Your task to perform on an android device: turn off sleep mode Image 0: 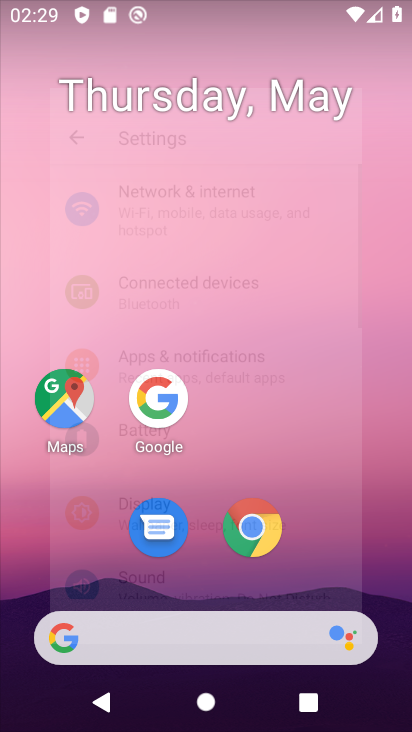
Step 0: drag from (208, 537) to (244, 64)
Your task to perform on an android device: turn off sleep mode Image 1: 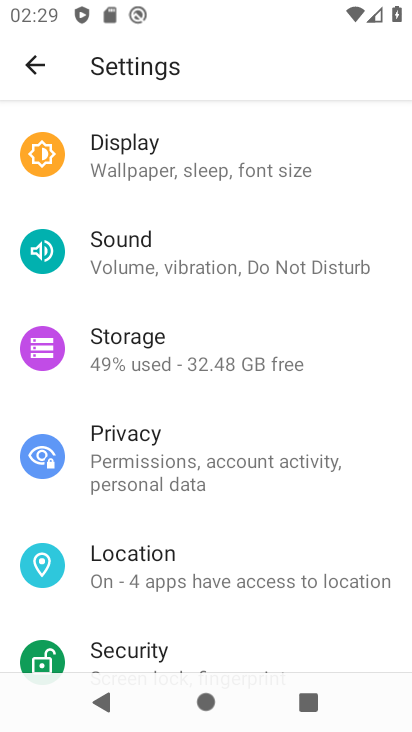
Step 1: click (231, 139)
Your task to perform on an android device: turn off sleep mode Image 2: 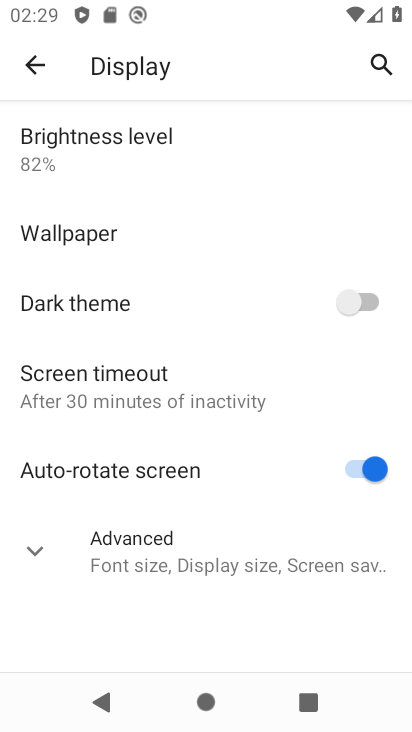
Step 2: drag from (217, 475) to (281, 176)
Your task to perform on an android device: turn off sleep mode Image 3: 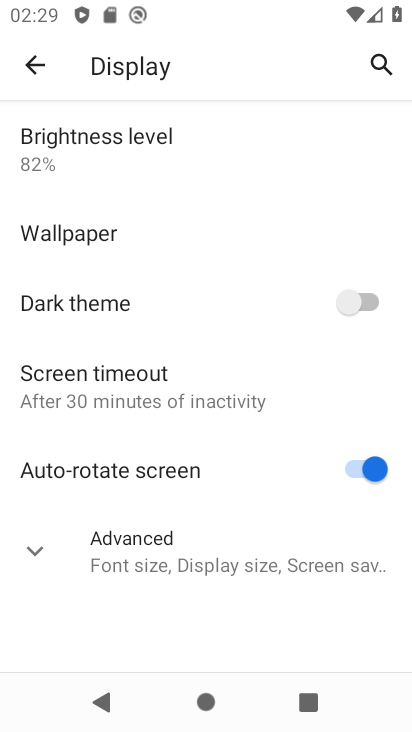
Step 3: drag from (210, 490) to (256, 242)
Your task to perform on an android device: turn off sleep mode Image 4: 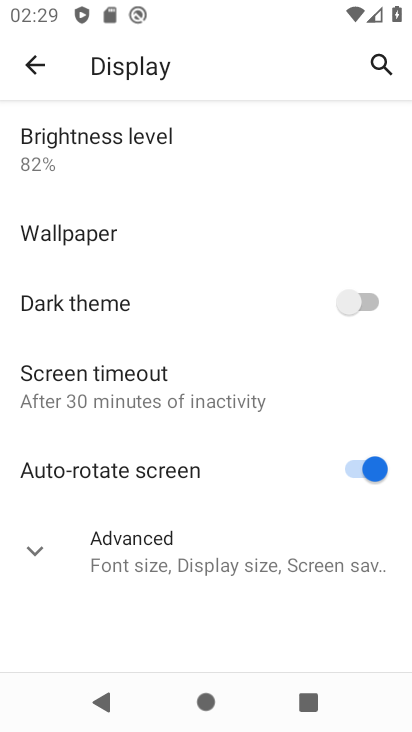
Step 4: click (241, 392)
Your task to perform on an android device: turn off sleep mode Image 5: 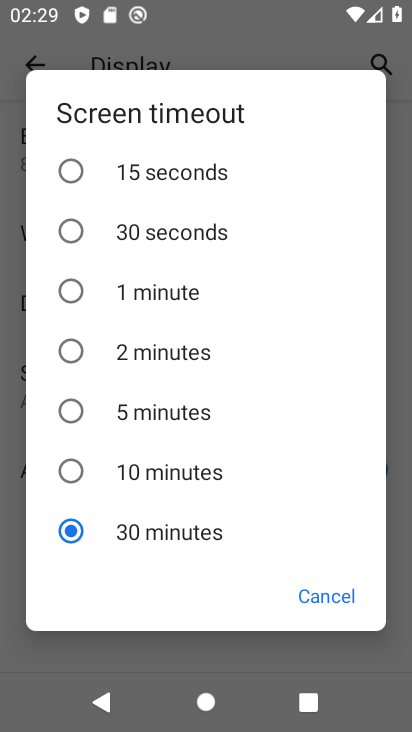
Step 5: task complete